Your task to perform on an android device: toggle translation in the chrome app Image 0: 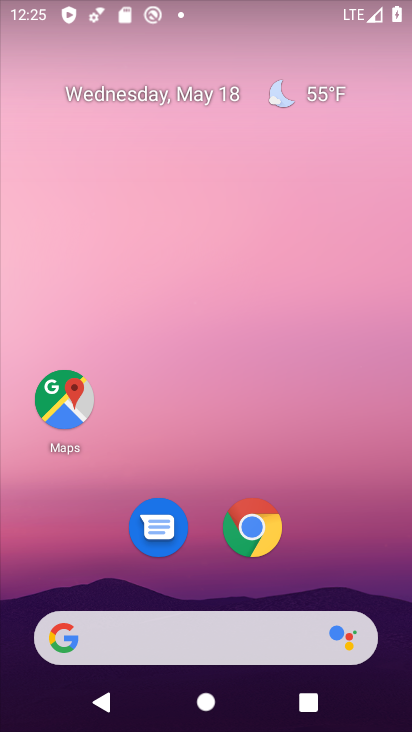
Step 0: click (256, 529)
Your task to perform on an android device: toggle translation in the chrome app Image 1: 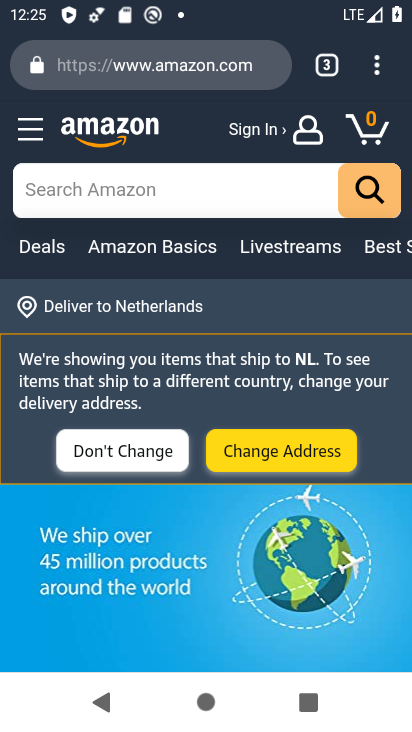
Step 1: click (368, 54)
Your task to perform on an android device: toggle translation in the chrome app Image 2: 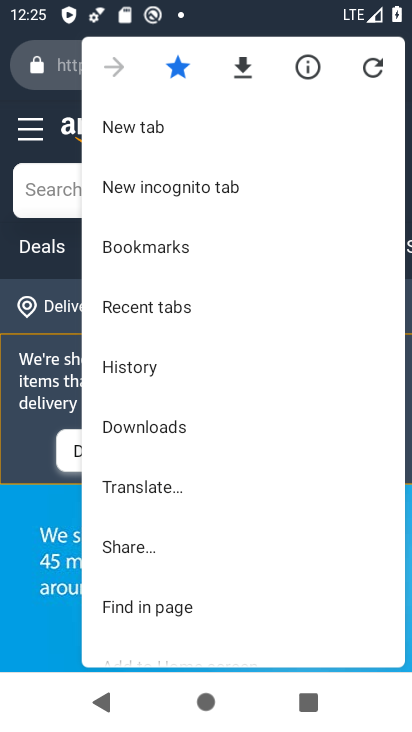
Step 2: drag from (274, 575) to (225, 184)
Your task to perform on an android device: toggle translation in the chrome app Image 3: 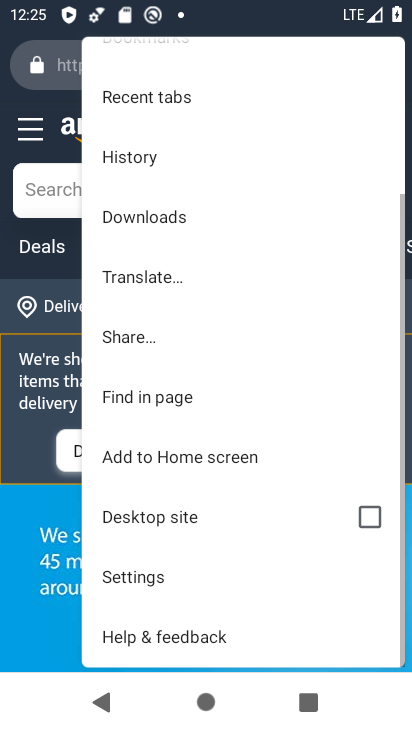
Step 3: click (175, 589)
Your task to perform on an android device: toggle translation in the chrome app Image 4: 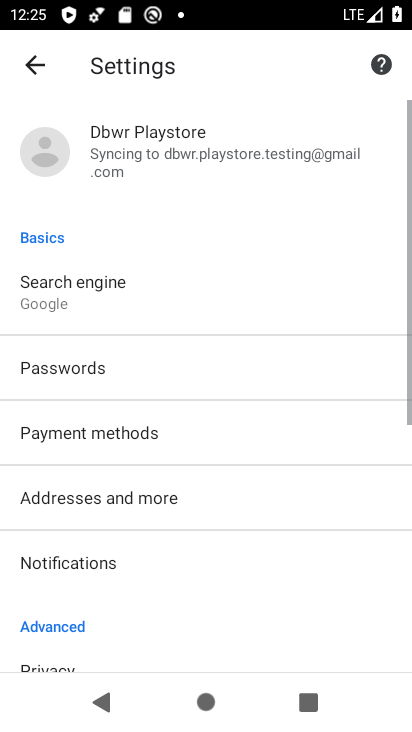
Step 4: drag from (210, 527) to (230, 228)
Your task to perform on an android device: toggle translation in the chrome app Image 5: 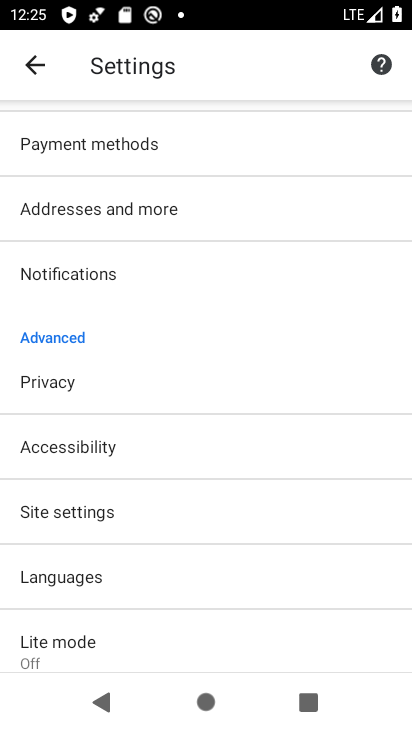
Step 5: click (160, 568)
Your task to perform on an android device: toggle translation in the chrome app Image 6: 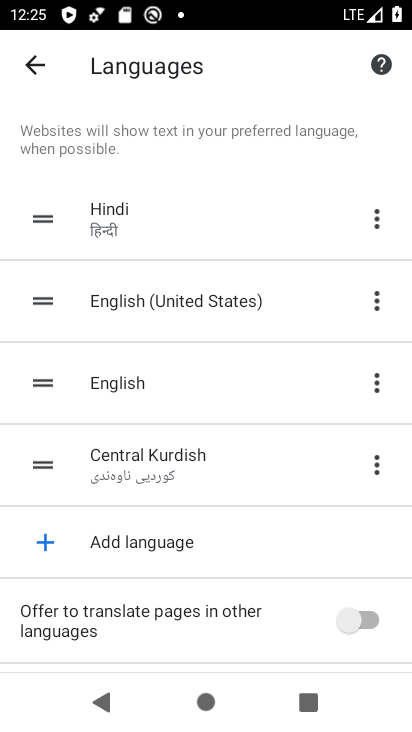
Step 6: click (361, 620)
Your task to perform on an android device: toggle translation in the chrome app Image 7: 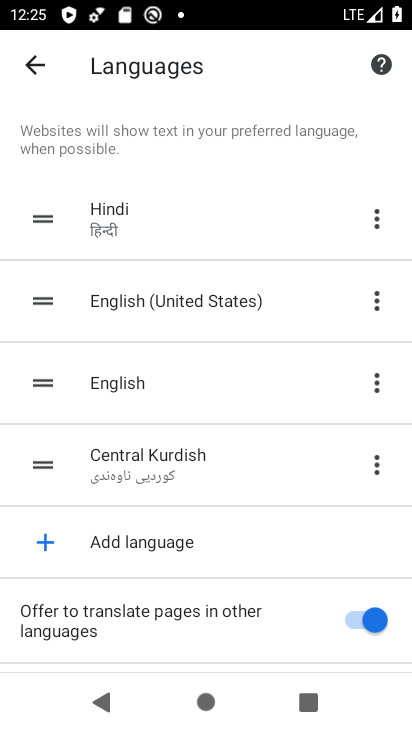
Step 7: task complete